Your task to perform on an android device: Search for "macbook" on ebay, select the first entry, add it to the cart, then select checkout. Image 0: 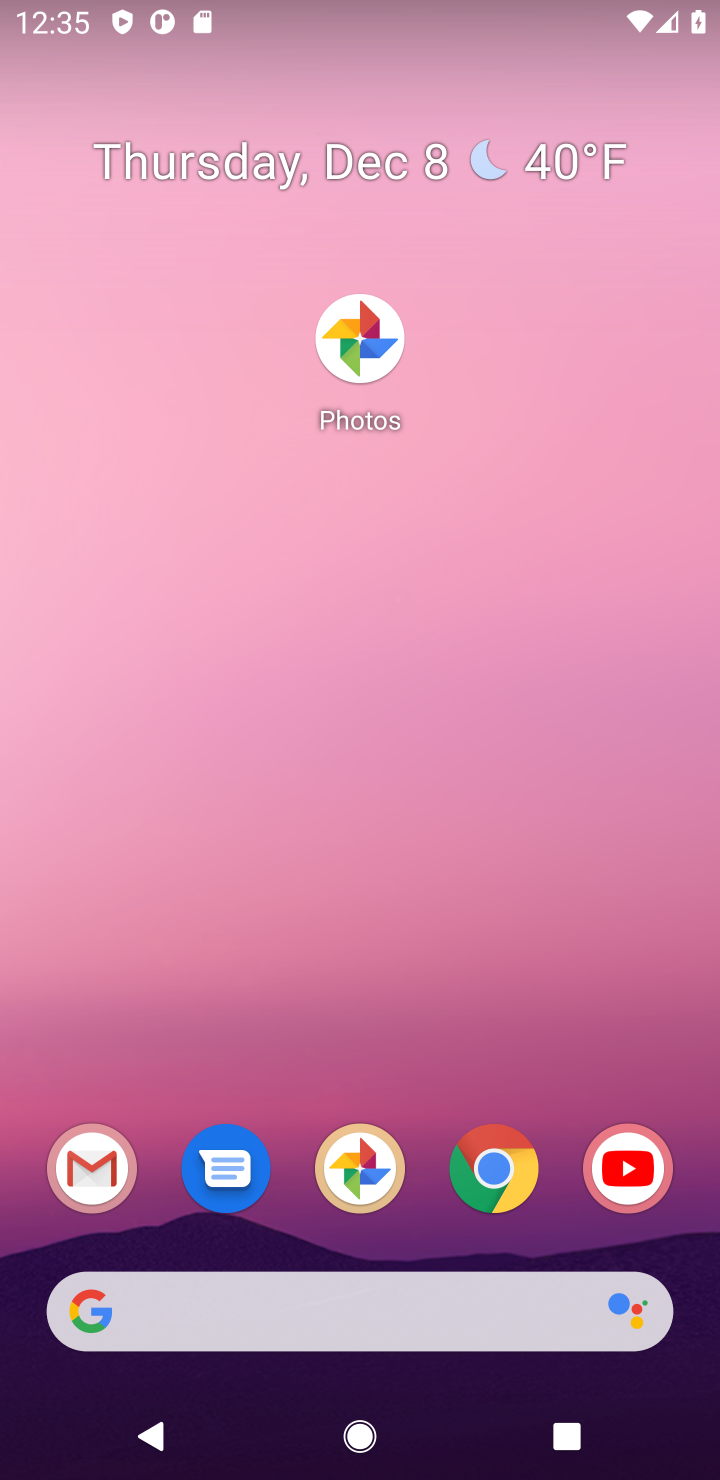
Step 0: drag from (288, 1152) to (277, 255)
Your task to perform on an android device: Search for "macbook" on ebay, select the first entry, add it to the cart, then select checkout. Image 1: 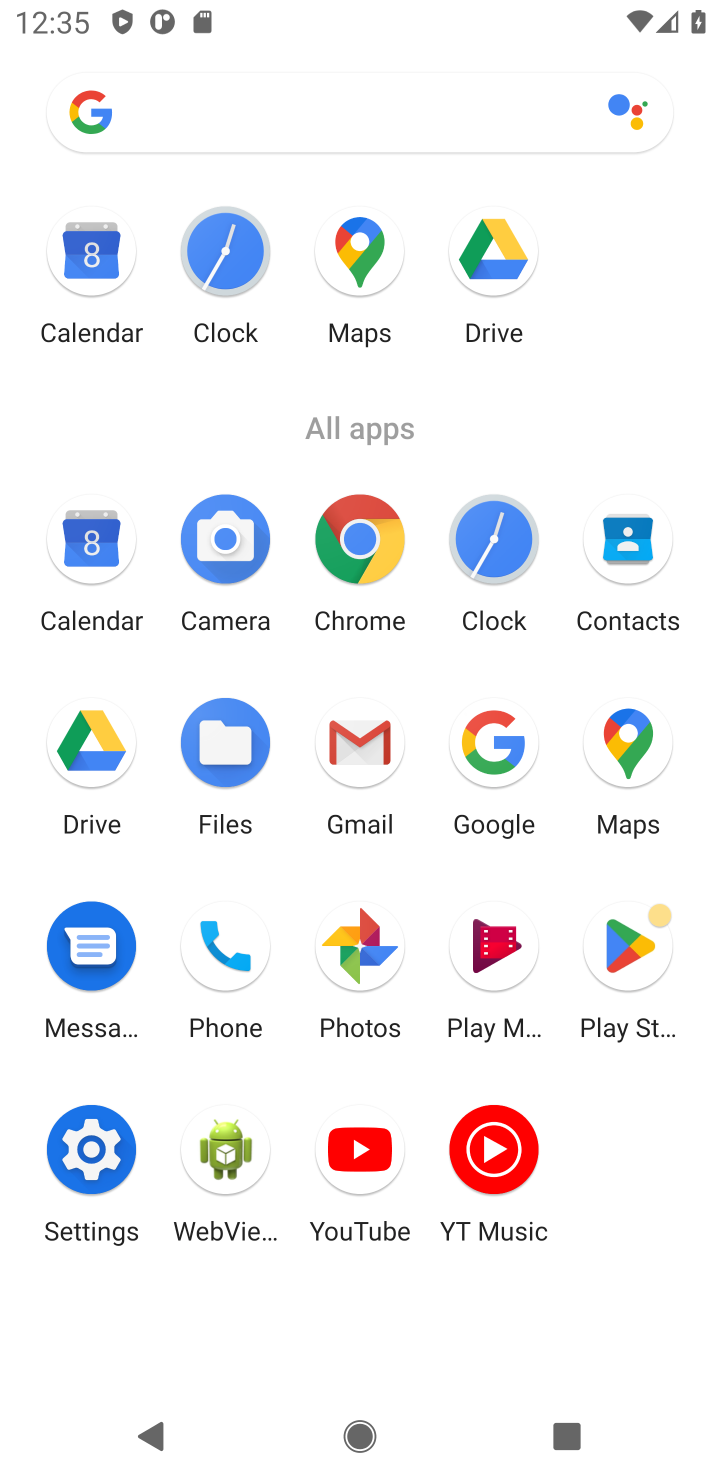
Step 1: click (475, 726)
Your task to perform on an android device: Search for "macbook" on ebay, select the first entry, add it to the cart, then select checkout. Image 2: 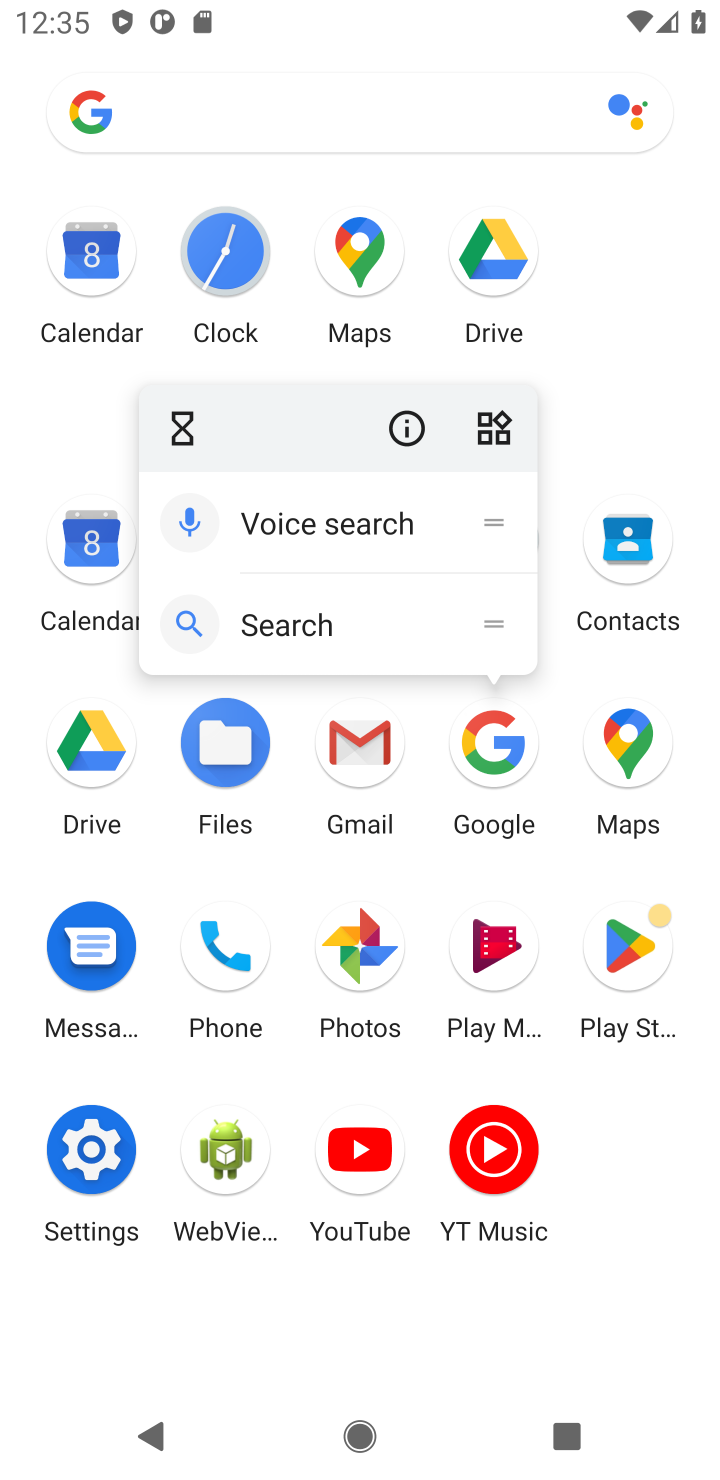
Step 2: click (483, 737)
Your task to perform on an android device: Search for "macbook" on ebay, select the first entry, add it to the cart, then select checkout. Image 3: 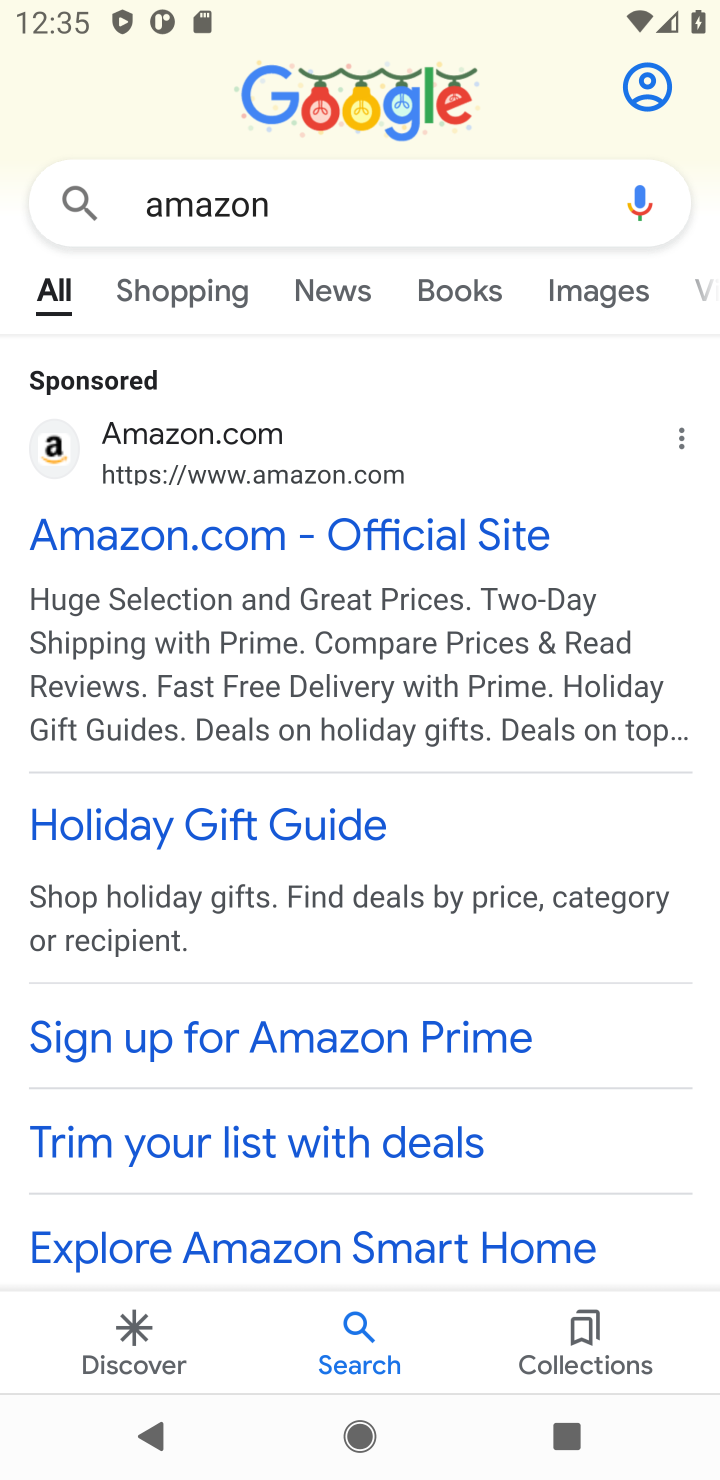
Step 3: click (223, 213)
Your task to perform on an android device: Search for "macbook" on ebay, select the first entry, add it to the cart, then select checkout. Image 4: 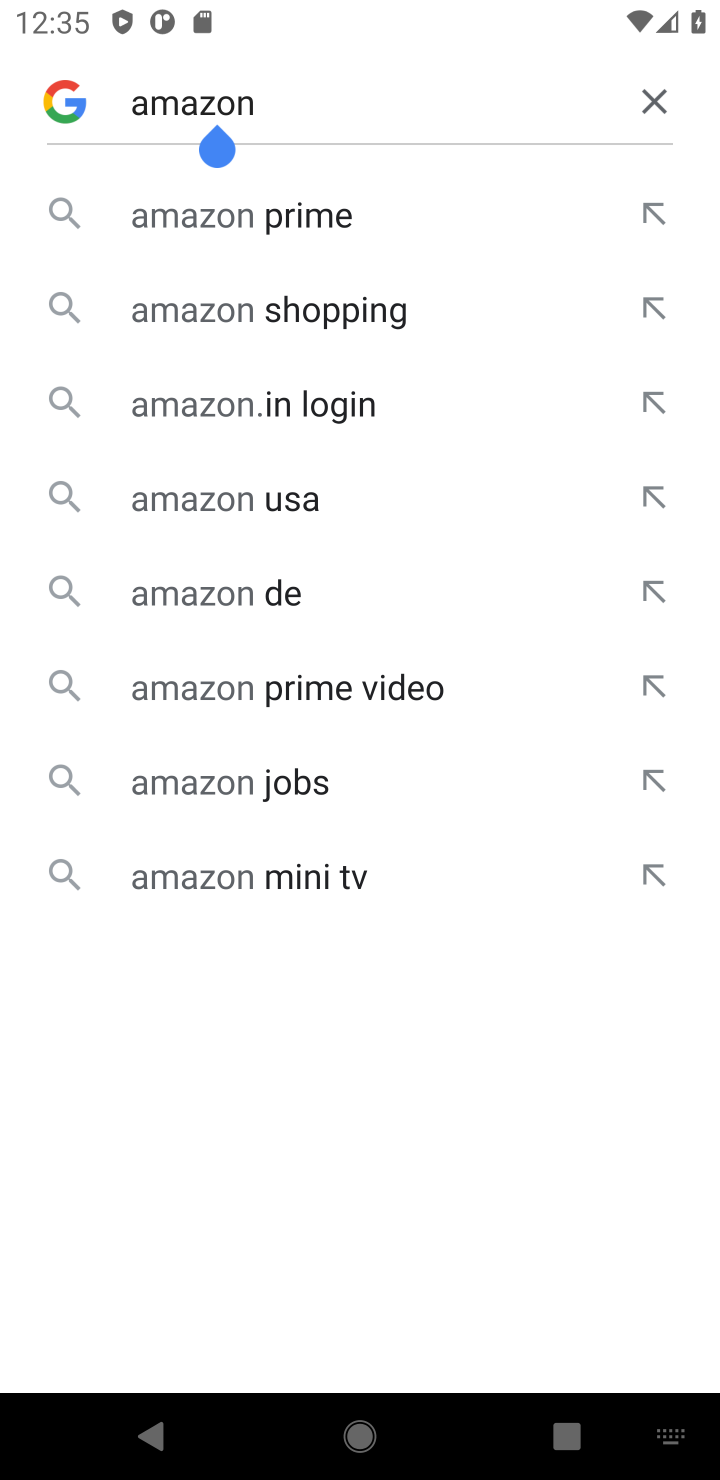
Step 4: click (646, 107)
Your task to perform on an android device: Search for "macbook" on ebay, select the first entry, add it to the cart, then select checkout. Image 5: 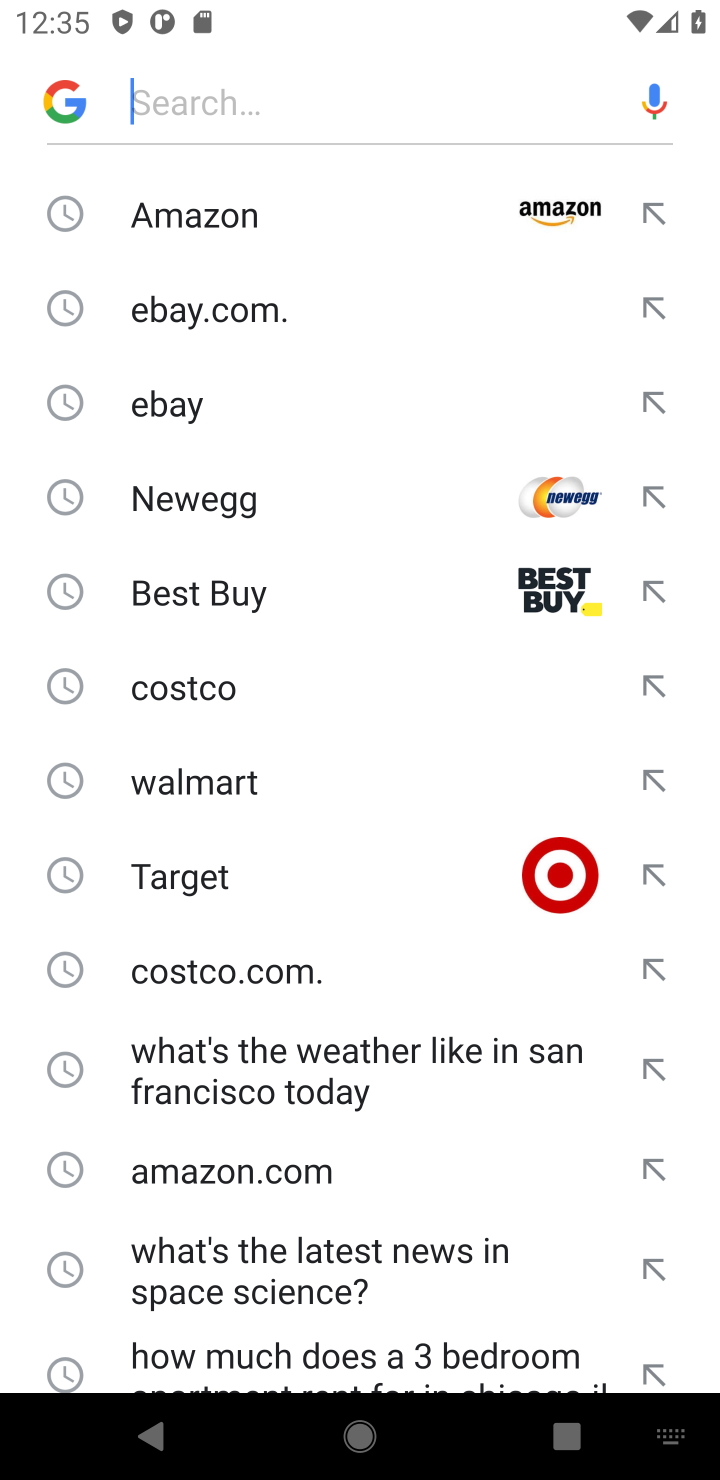
Step 5: click (171, 397)
Your task to perform on an android device: Search for "macbook" on ebay, select the first entry, add it to the cart, then select checkout. Image 6: 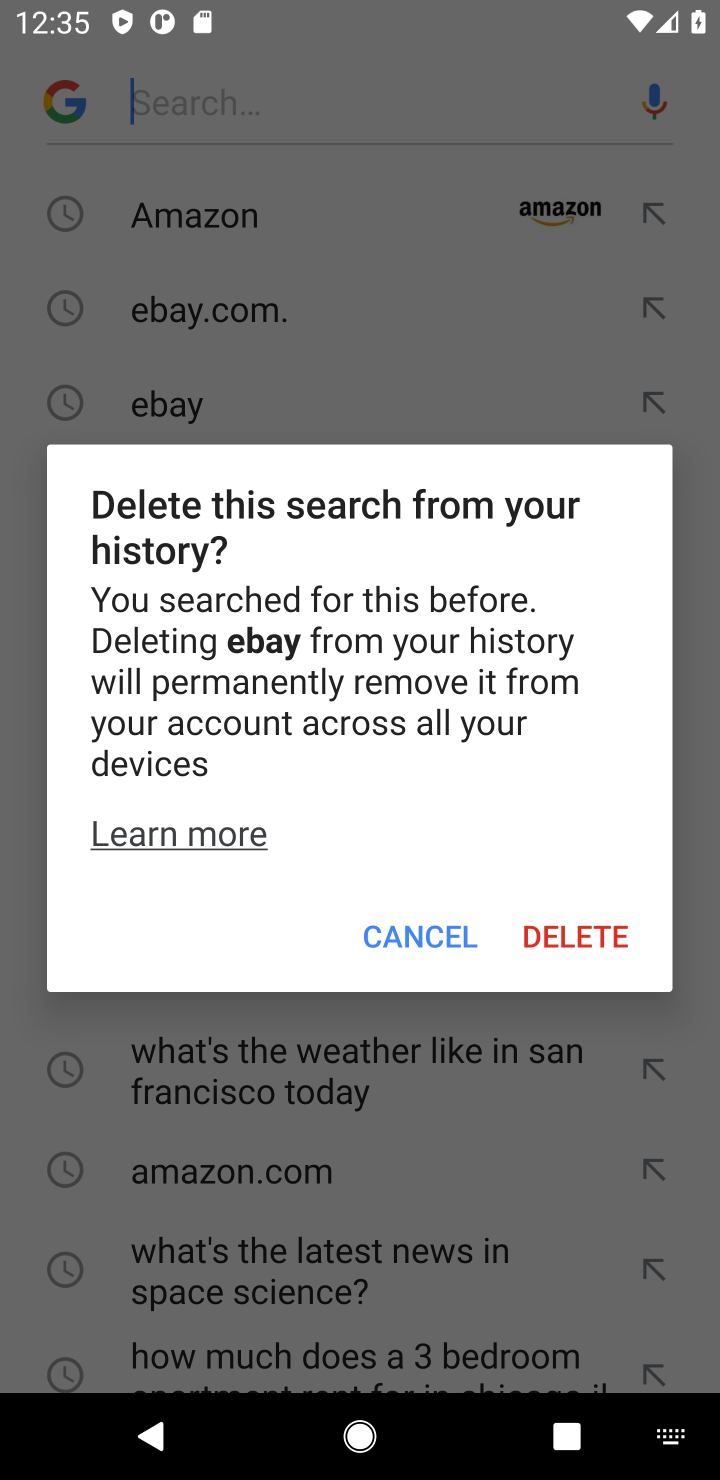
Step 6: click (436, 937)
Your task to perform on an android device: Search for "macbook" on ebay, select the first entry, add it to the cart, then select checkout. Image 7: 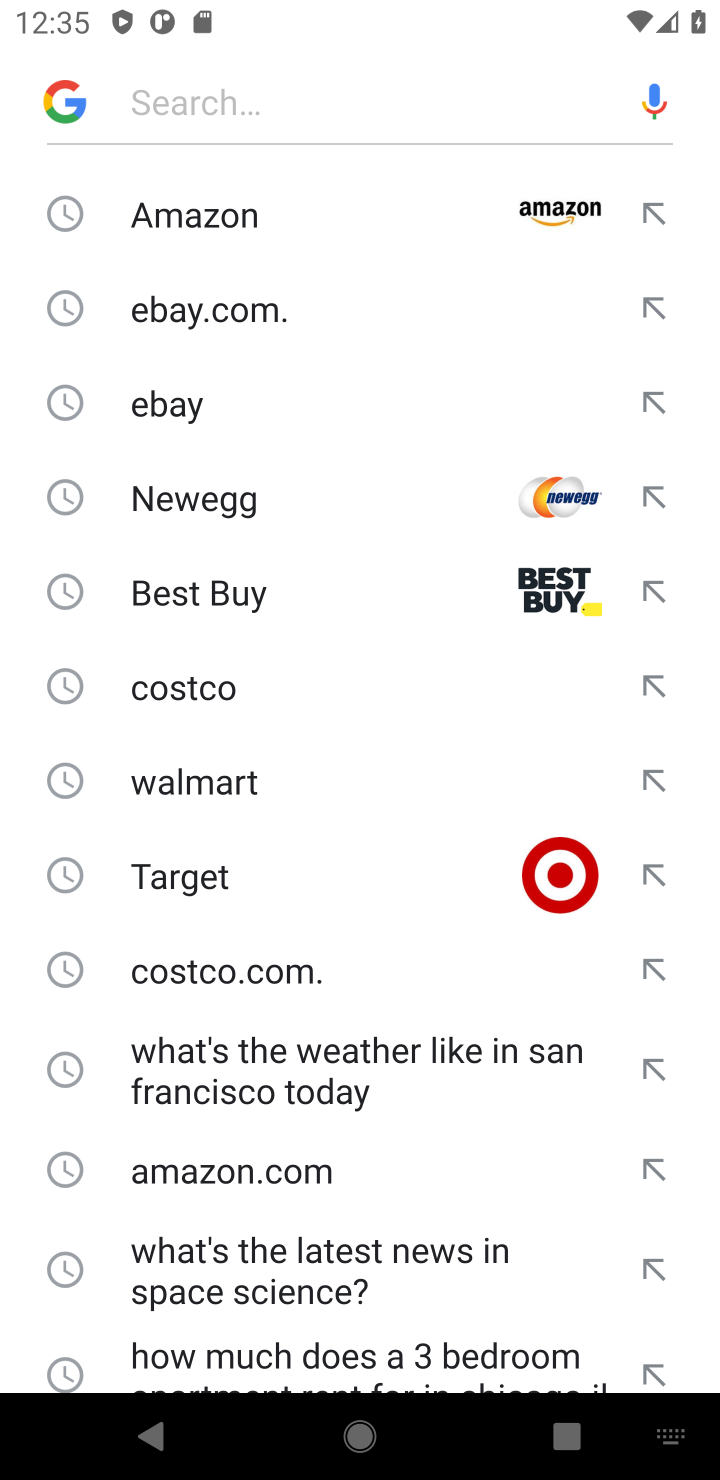
Step 7: click (652, 409)
Your task to perform on an android device: Search for "macbook" on ebay, select the first entry, add it to the cart, then select checkout. Image 8: 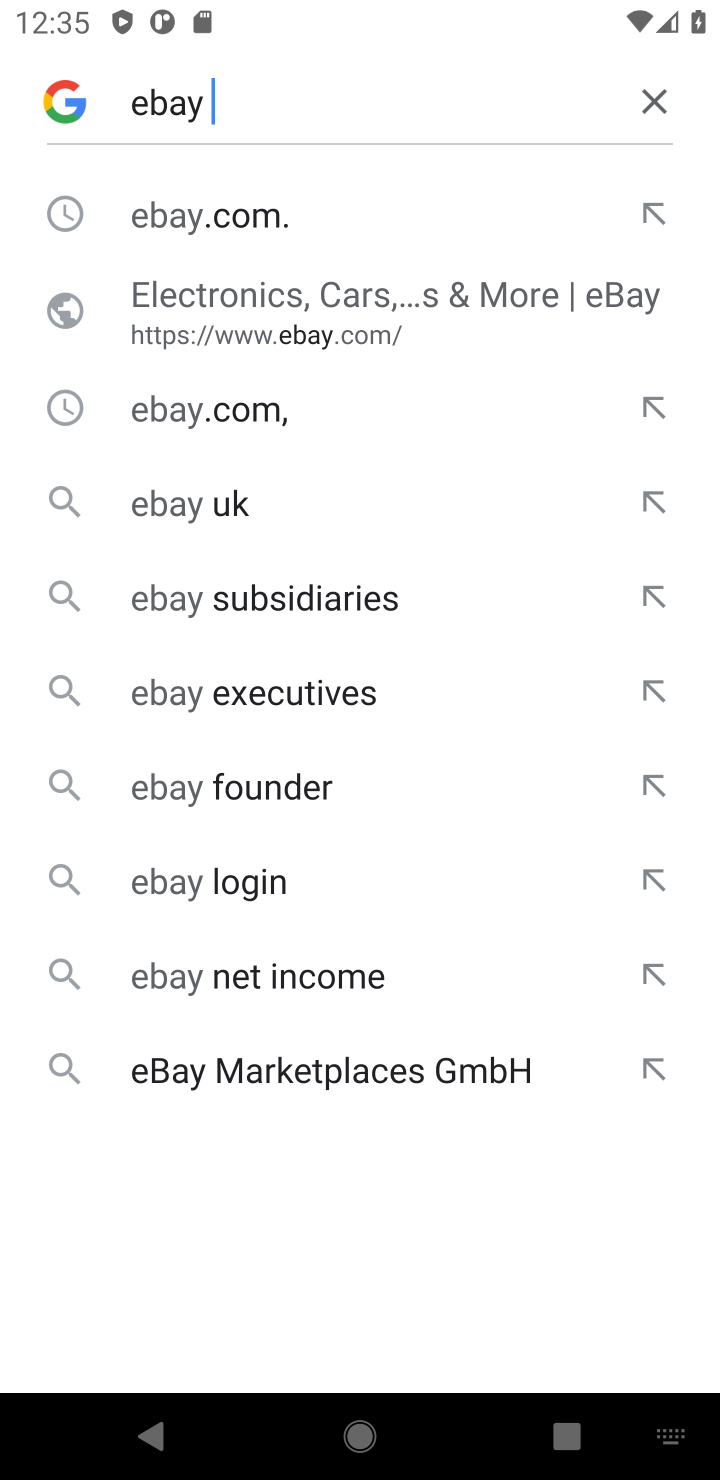
Step 8: click (175, 203)
Your task to perform on an android device: Search for "macbook" on ebay, select the first entry, add it to the cart, then select checkout. Image 9: 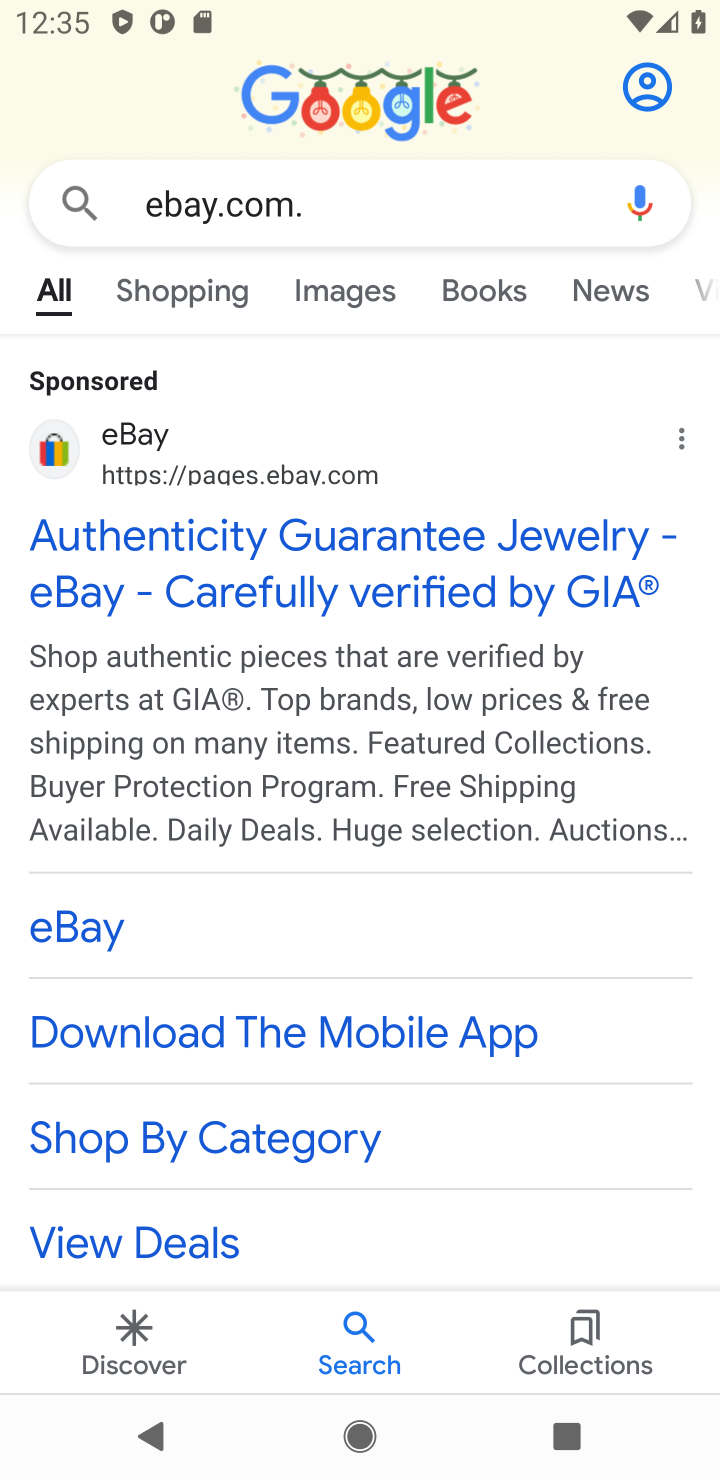
Step 9: click (298, 576)
Your task to perform on an android device: Search for "macbook" on ebay, select the first entry, add it to the cart, then select checkout. Image 10: 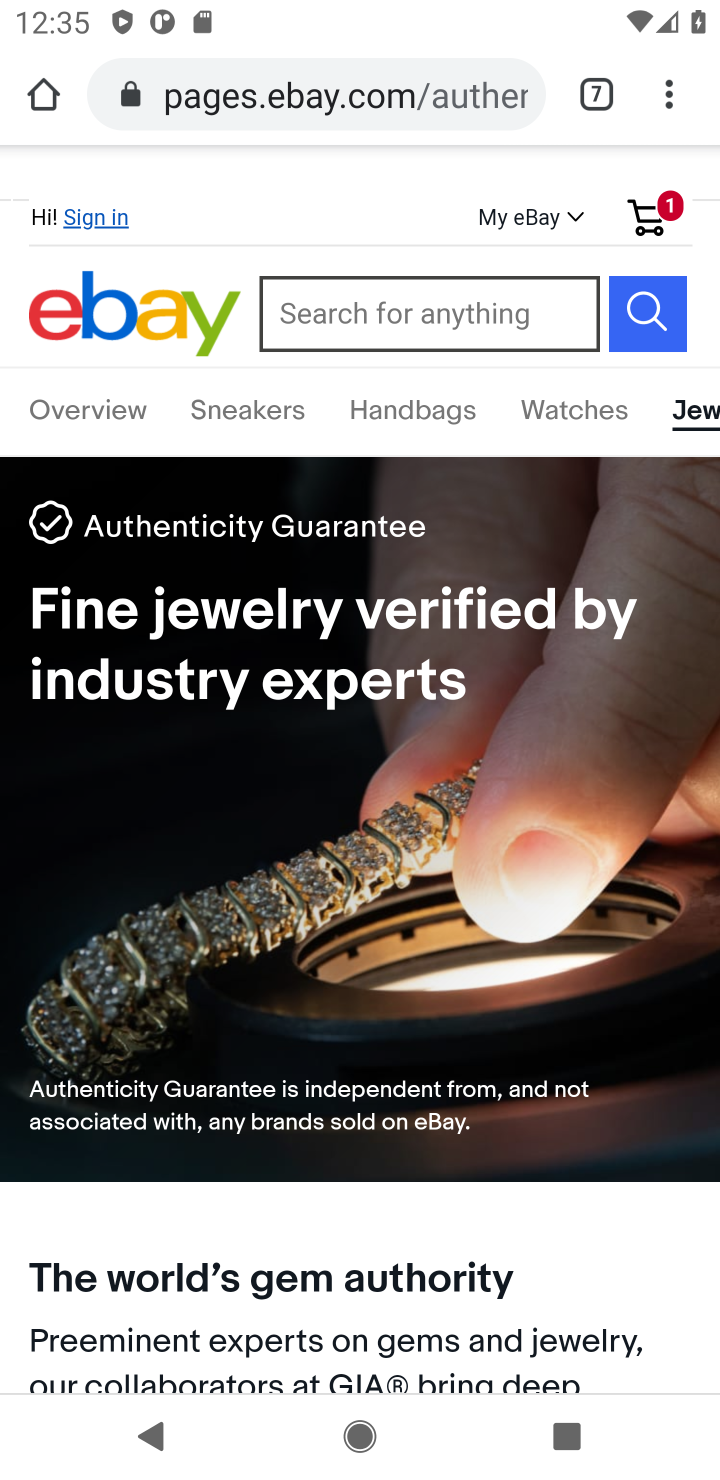
Step 10: click (306, 325)
Your task to perform on an android device: Search for "macbook" on ebay, select the first entry, add it to the cart, then select checkout. Image 11: 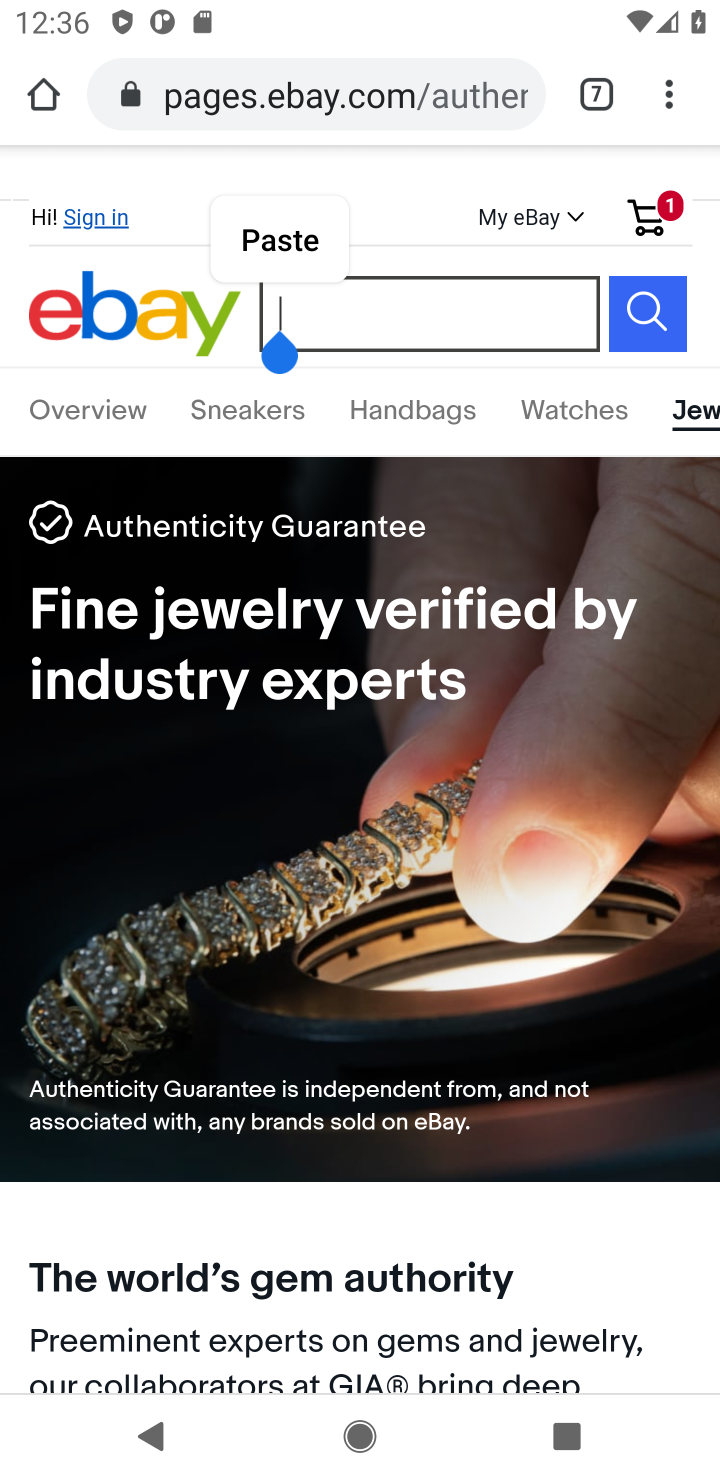
Step 11: click (380, 312)
Your task to perform on an android device: Search for "macbook" on ebay, select the first entry, add it to the cart, then select checkout. Image 12: 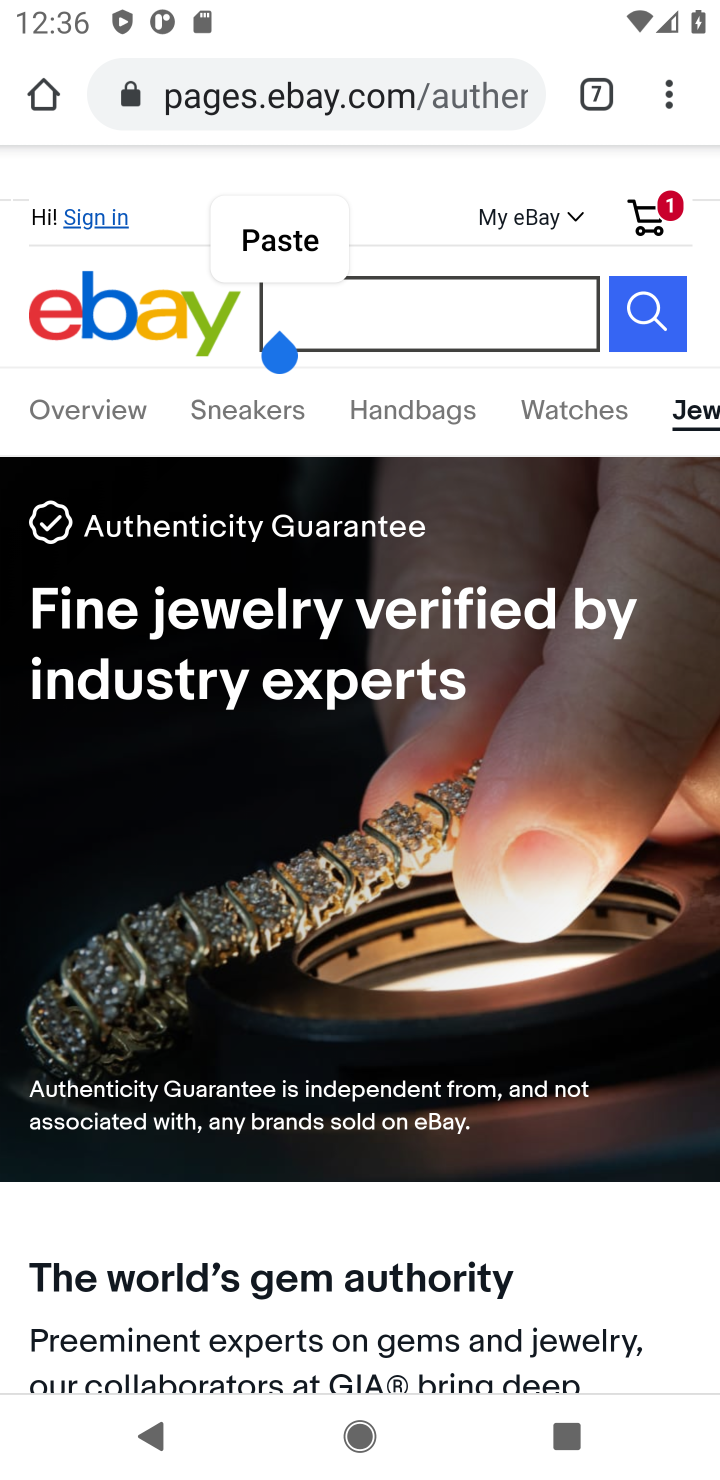
Step 12: type "macbook"
Your task to perform on an android device: Search for "macbook" on ebay, select the first entry, add it to the cart, then select checkout. Image 13: 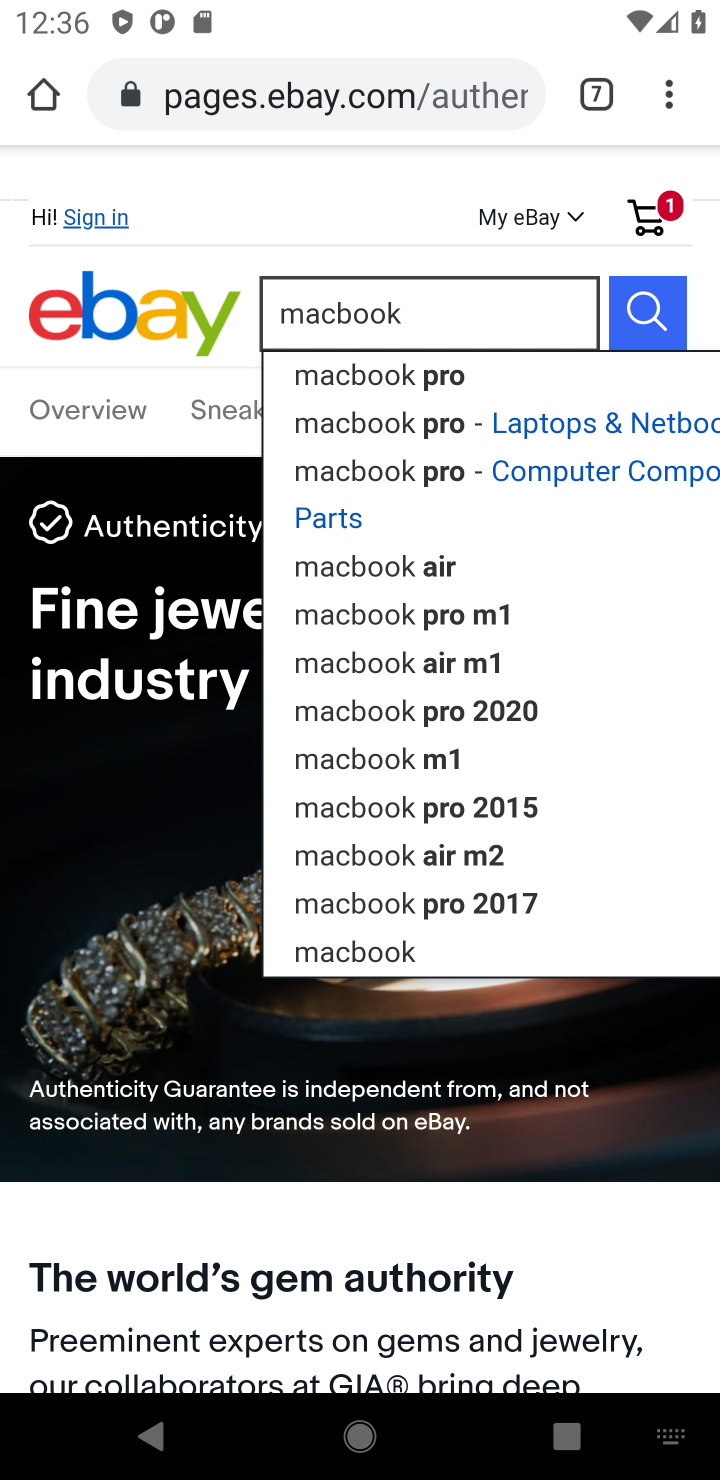
Step 13: click (450, 381)
Your task to perform on an android device: Search for "macbook" on ebay, select the first entry, add it to the cart, then select checkout. Image 14: 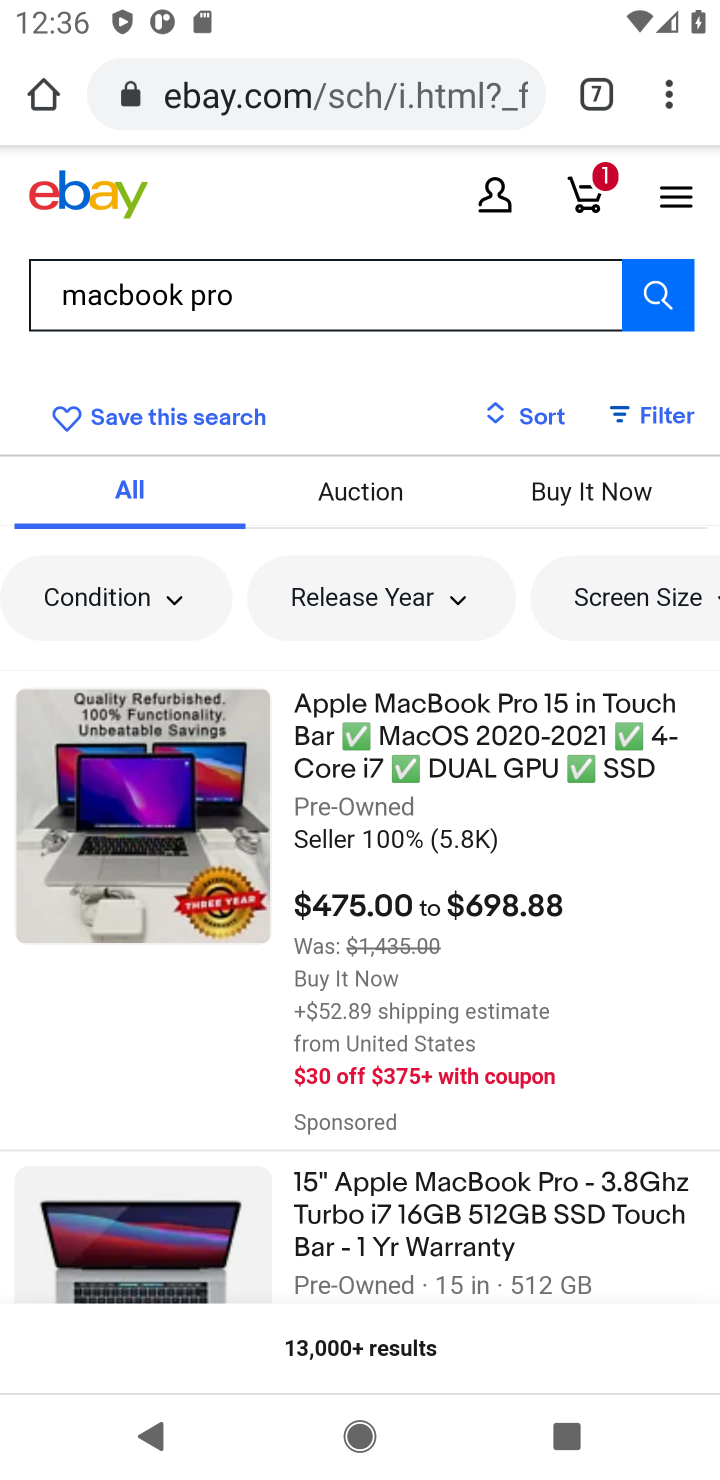
Step 14: click (483, 750)
Your task to perform on an android device: Search for "macbook" on ebay, select the first entry, add it to the cart, then select checkout. Image 15: 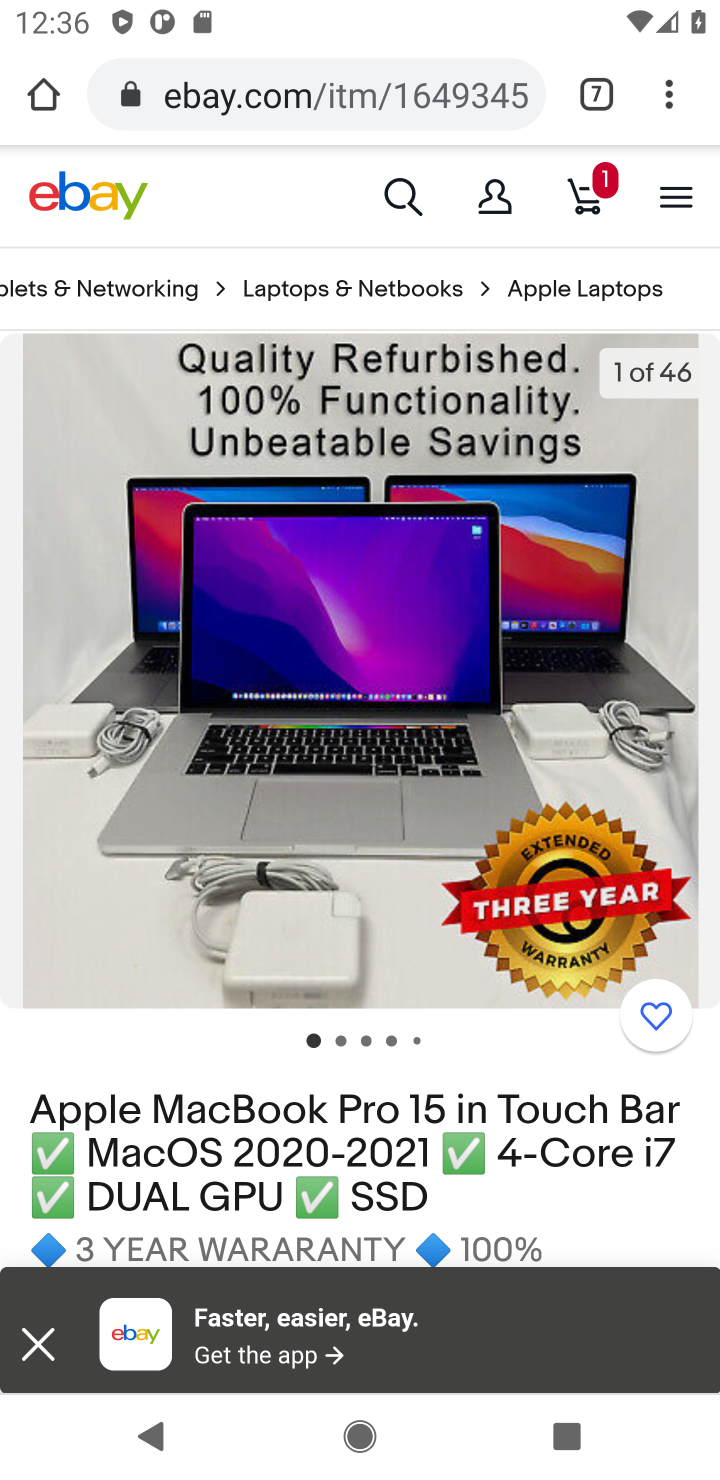
Step 15: drag from (525, 943) to (517, 606)
Your task to perform on an android device: Search for "macbook" on ebay, select the first entry, add it to the cart, then select checkout. Image 16: 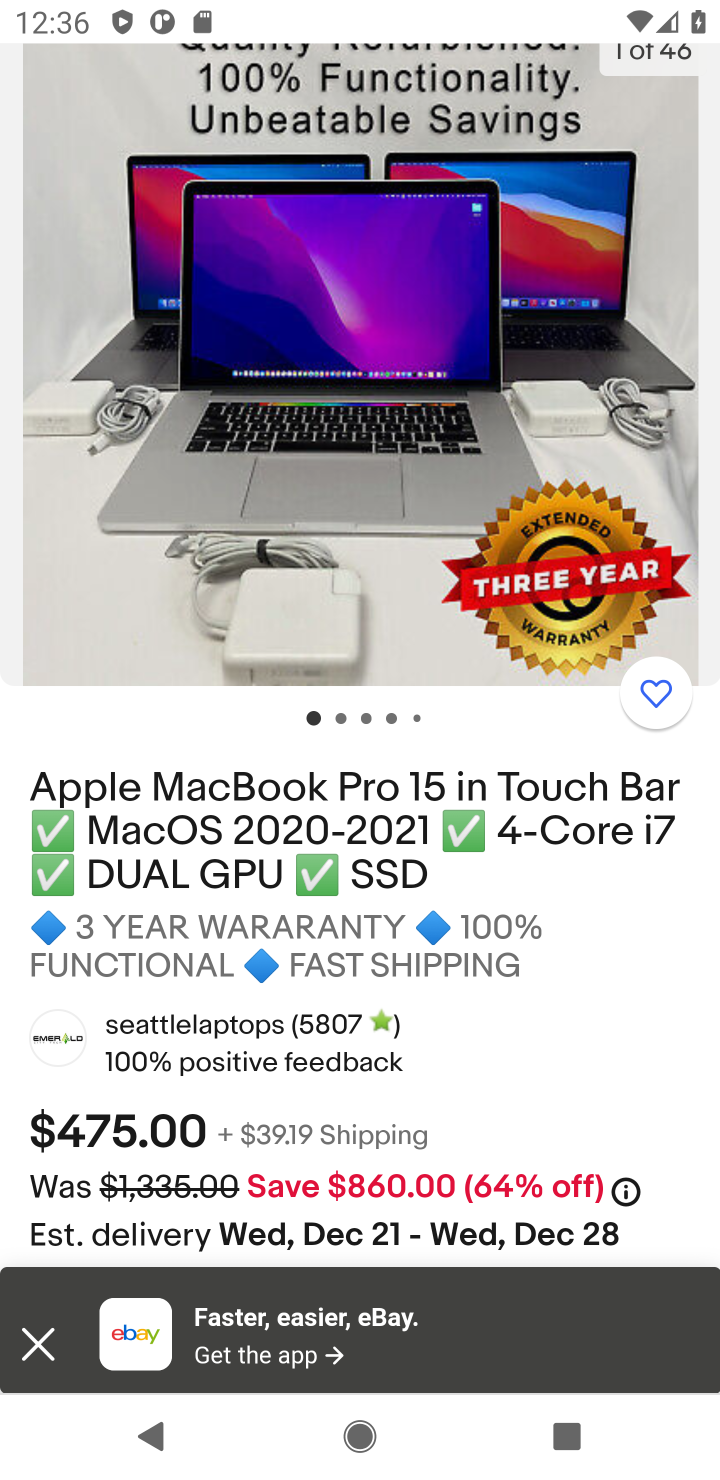
Step 16: drag from (579, 827) to (539, 349)
Your task to perform on an android device: Search for "macbook" on ebay, select the first entry, add it to the cart, then select checkout. Image 17: 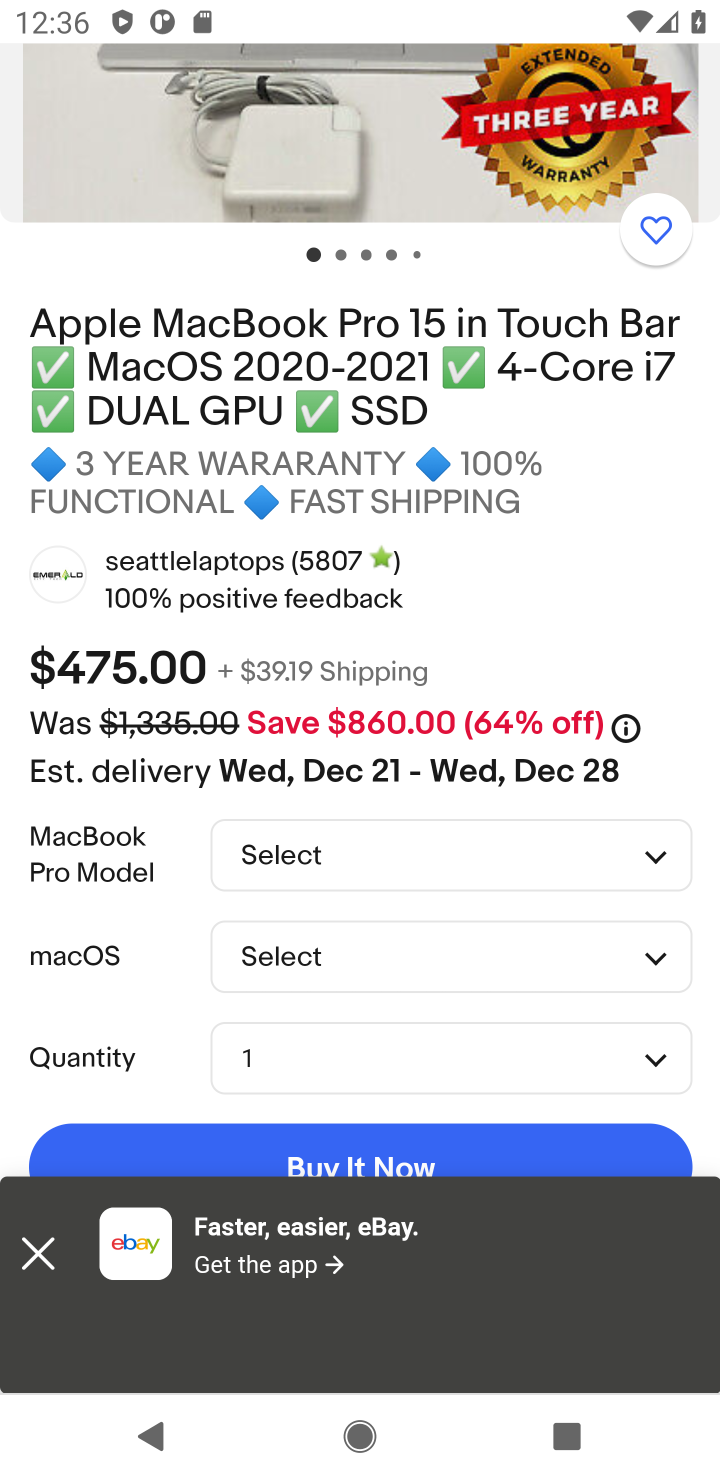
Step 17: drag from (566, 921) to (537, 395)
Your task to perform on an android device: Search for "macbook" on ebay, select the first entry, add it to the cart, then select checkout. Image 18: 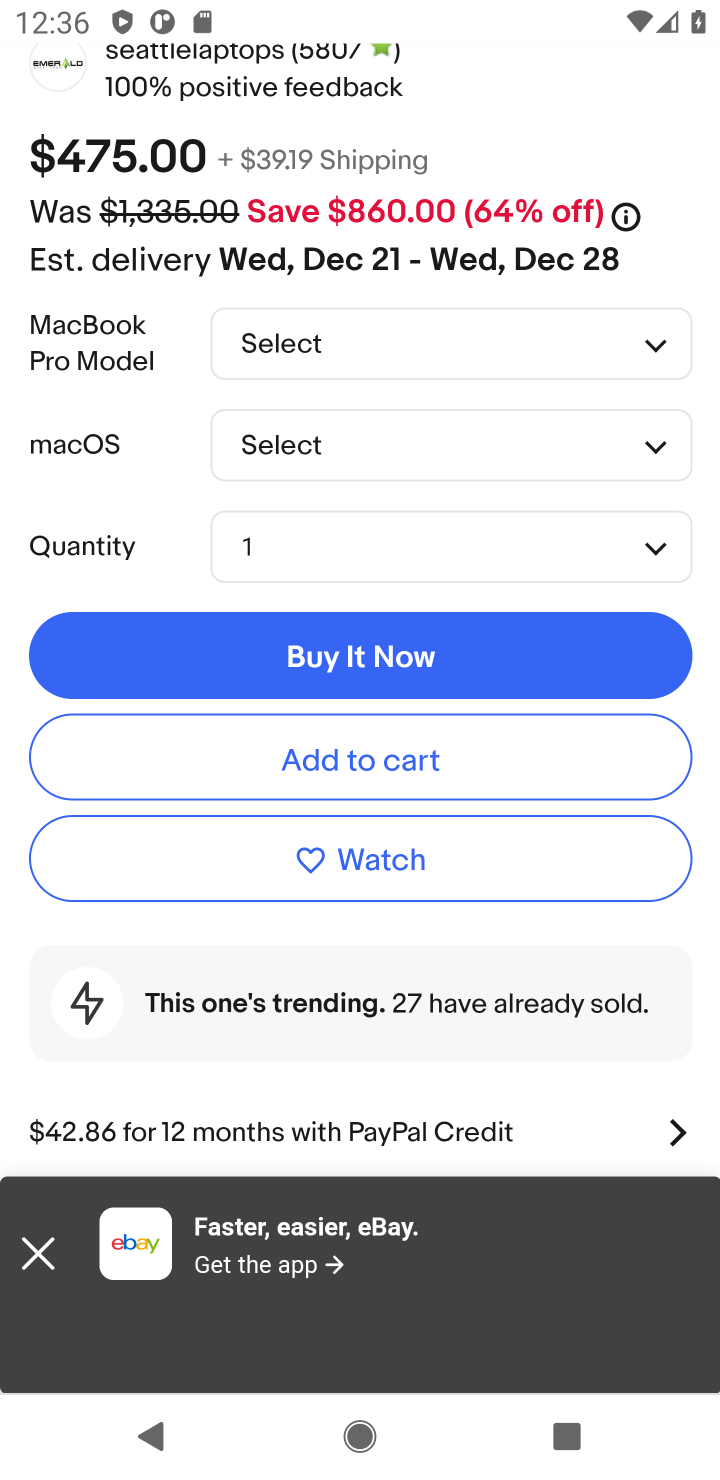
Step 18: click (456, 758)
Your task to perform on an android device: Search for "macbook" on ebay, select the first entry, add it to the cart, then select checkout. Image 19: 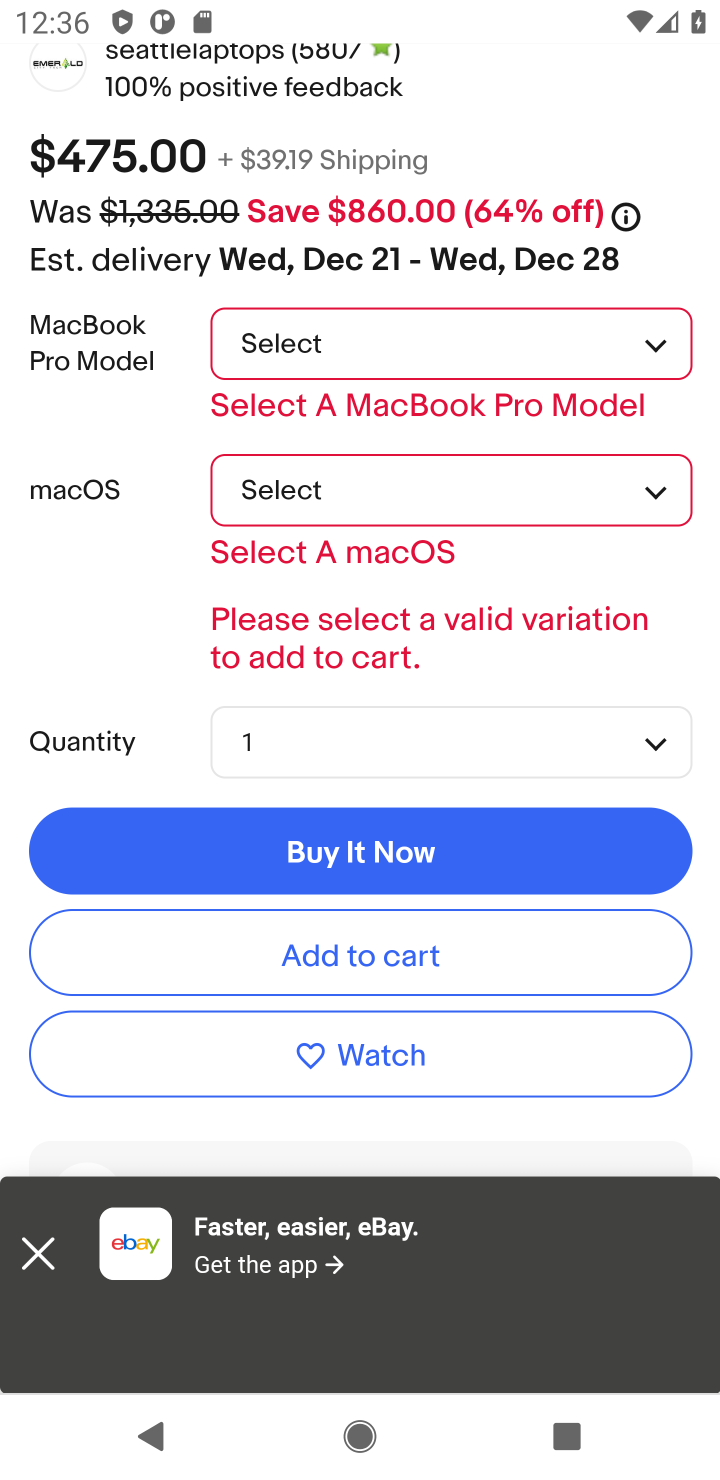
Step 19: click (659, 342)
Your task to perform on an android device: Search for "macbook" on ebay, select the first entry, add it to the cart, then select checkout. Image 20: 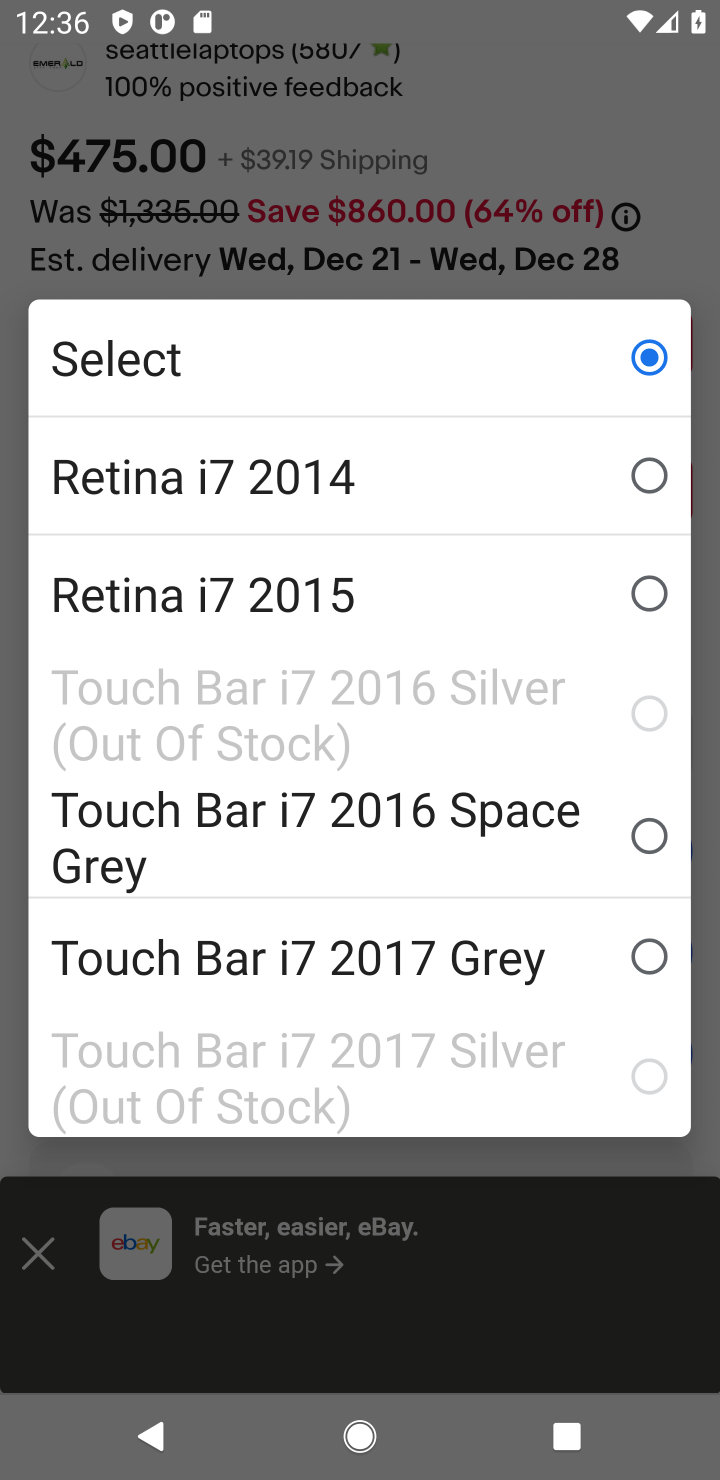
Step 20: click (642, 472)
Your task to perform on an android device: Search for "macbook" on ebay, select the first entry, add it to the cart, then select checkout. Image 21: 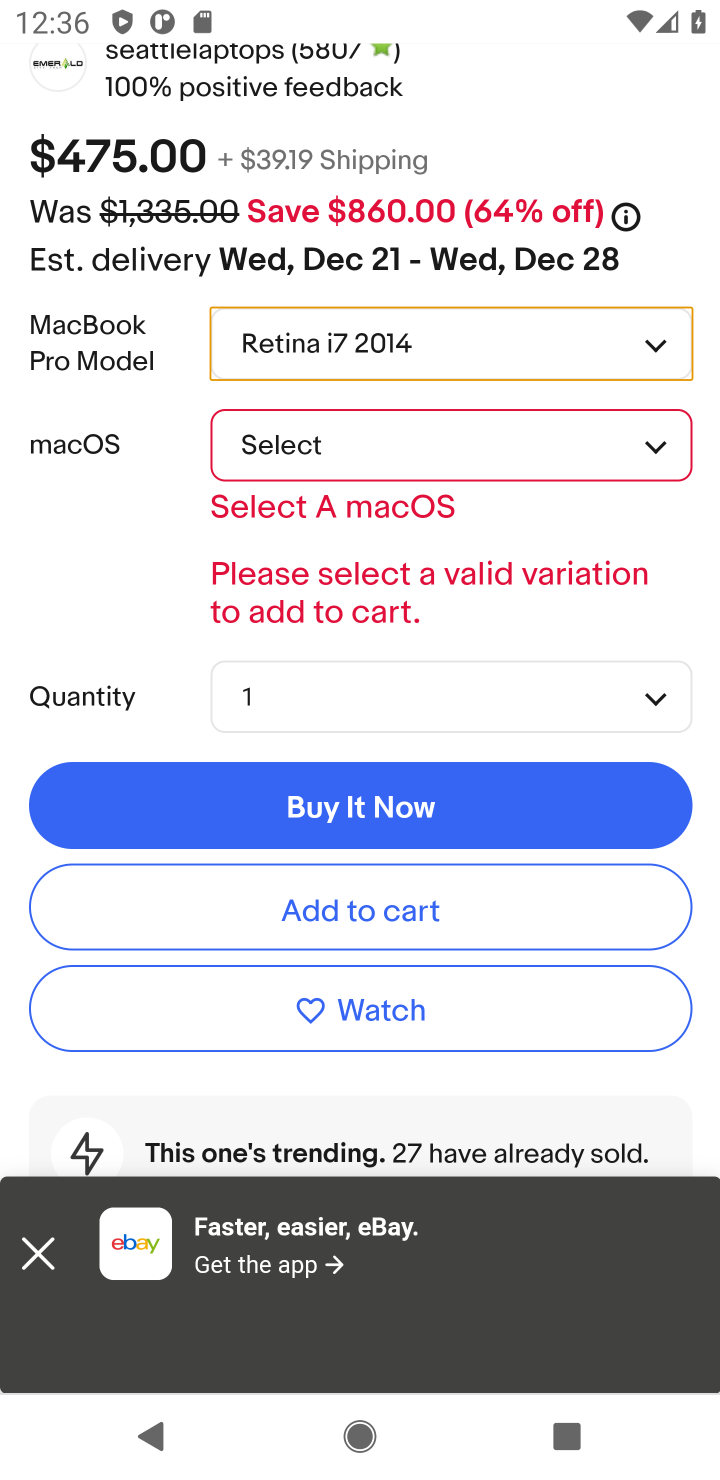
Step 21: click (662, 466)
Your task to perform on an android device: Search for "macbook" on ebay, select the first entry, add it to the cart, then select checkout. Image 22: 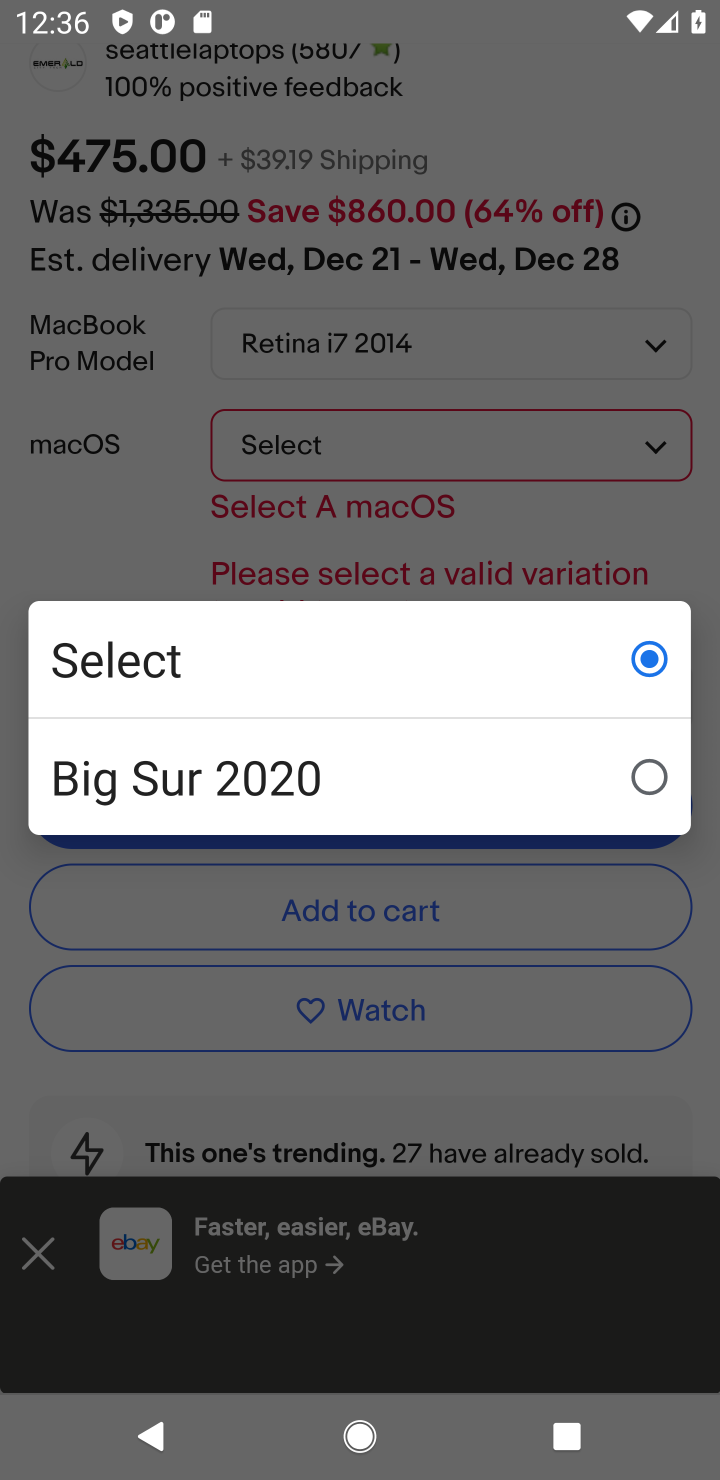
Step 22: click (647, 776)
Your task to perform on an android device: Search for "macbook" on ebay, select the first entry, add it to the cart, then select checkout. Image 23: 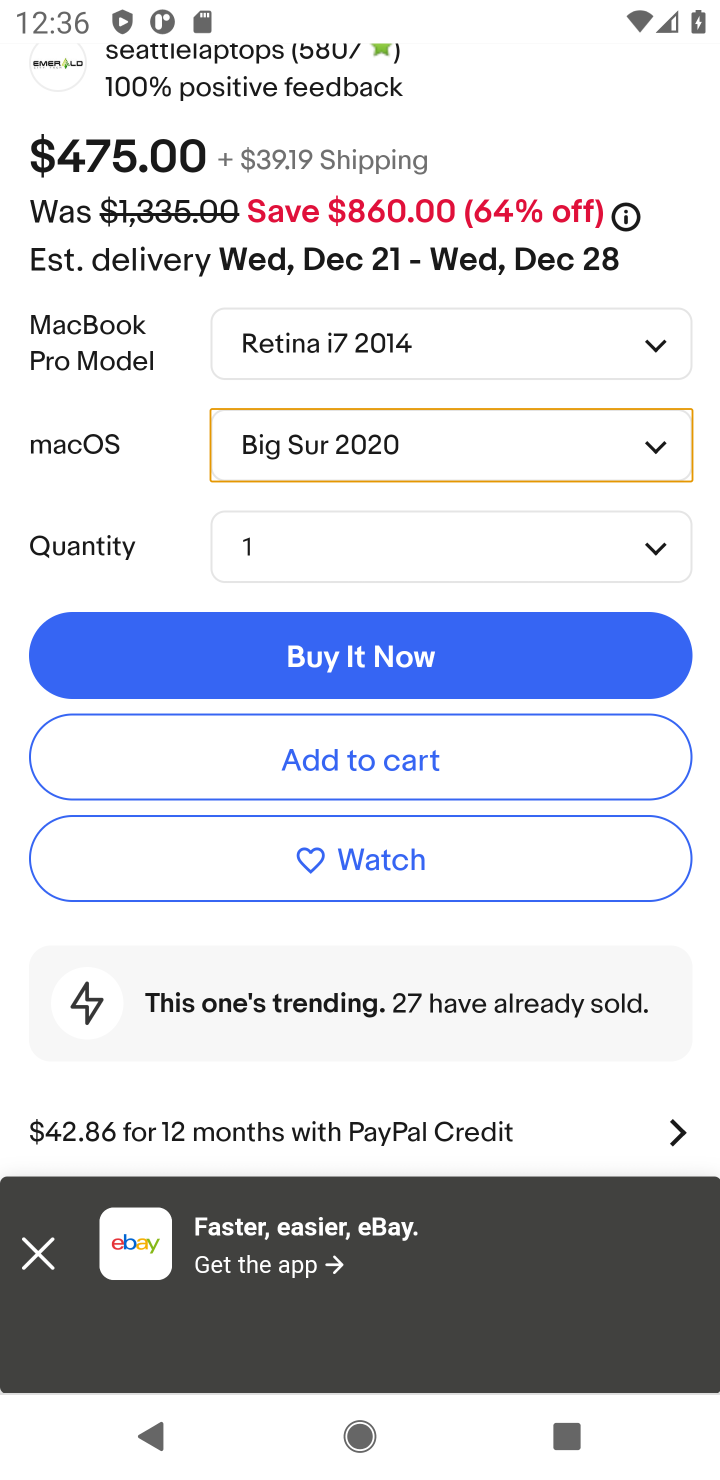
Step 23: click (449, 765)
Your task to perform on an android device: Search for "macbook" on ebay, select the first entry, add it to the cart, then select checkout. Image 24: 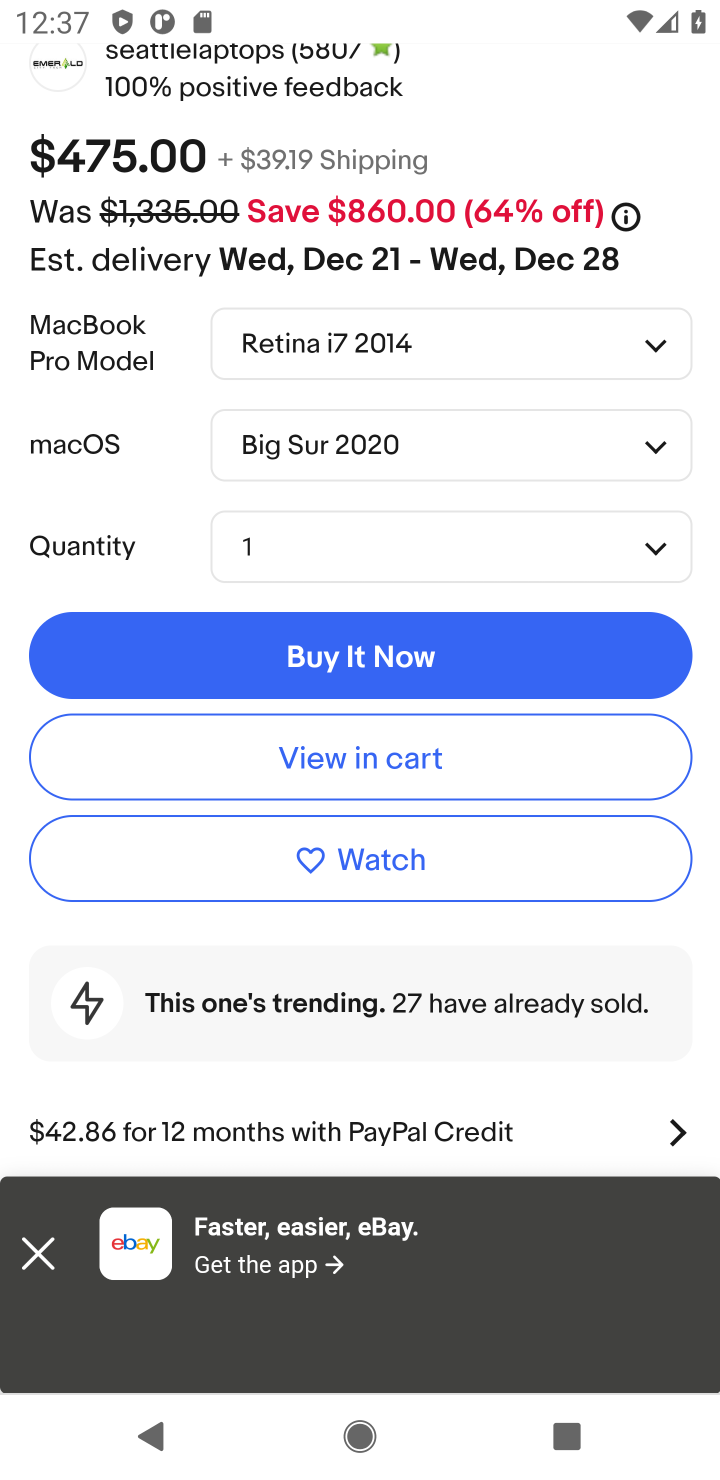
Step 24: click (440, 761)
Your task to perform on an android device: Search for "macbook" on ebay, select the first entry, add it to the cart, then select checkout. Image 25: 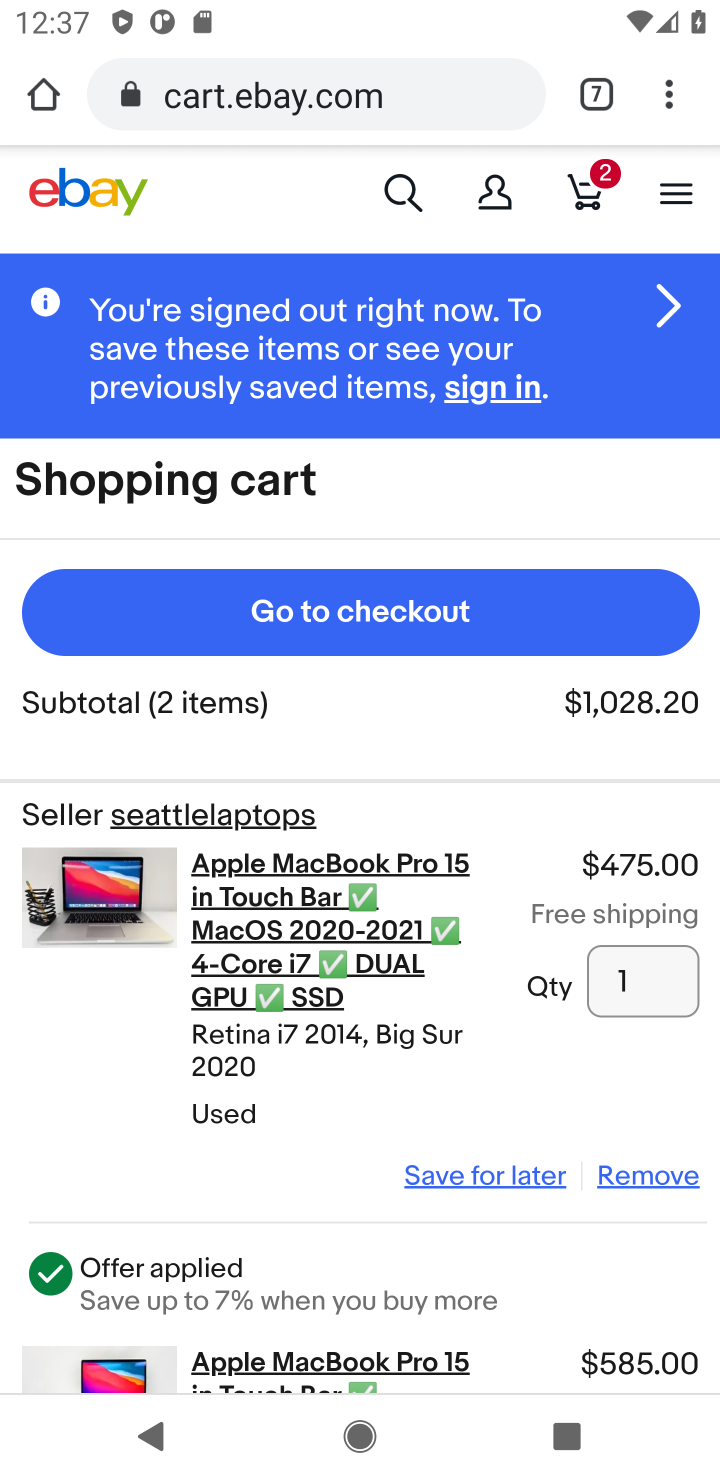
Step 25: click (347, 621)
Your task to perform on an android device: Search for "macbook" on ebay, select the first entry, add it to the cart, then select checkout. Image 26: 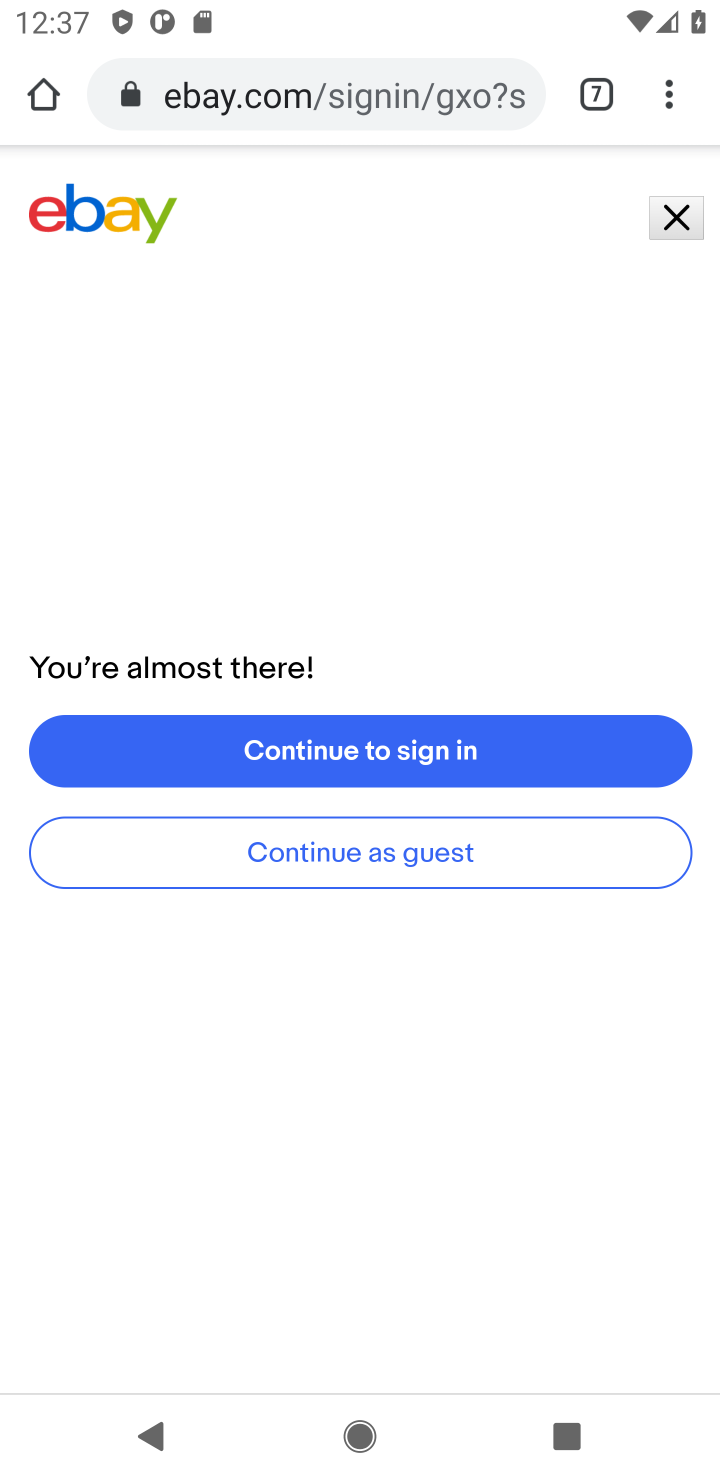
Step 26: task complete